Your task to perform on an android device: change the upload size in google photos Image 0: 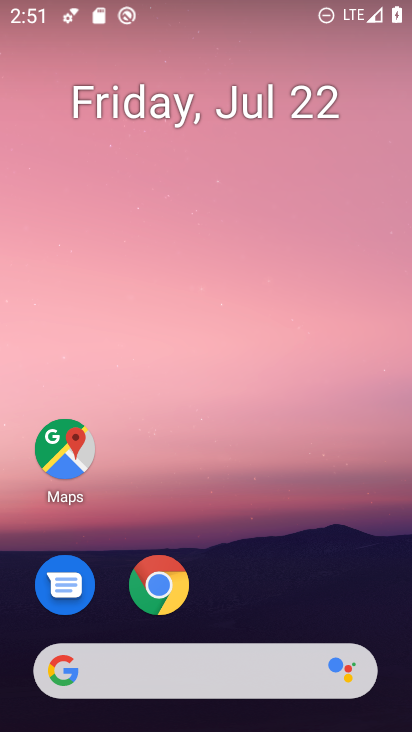
Step 0: drag from (298, 594) to (259, 47)
Your task to perform on an android device: change the upload size in google photos Image 1: 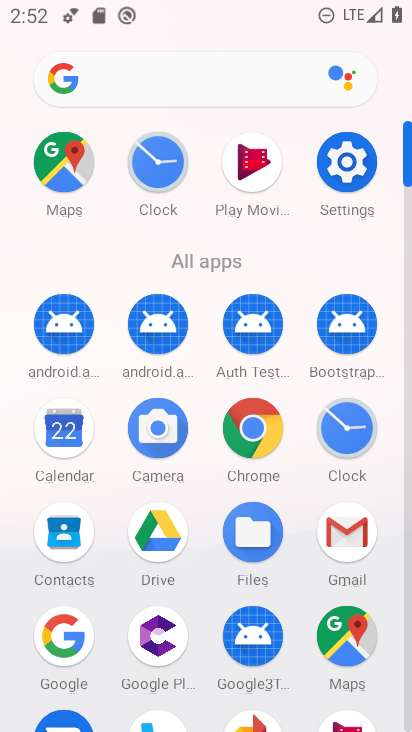
Step 1: drag from (285, 490) to (289, 62)
Your task to perform on an android device: change the upload size in google photos Image 2: 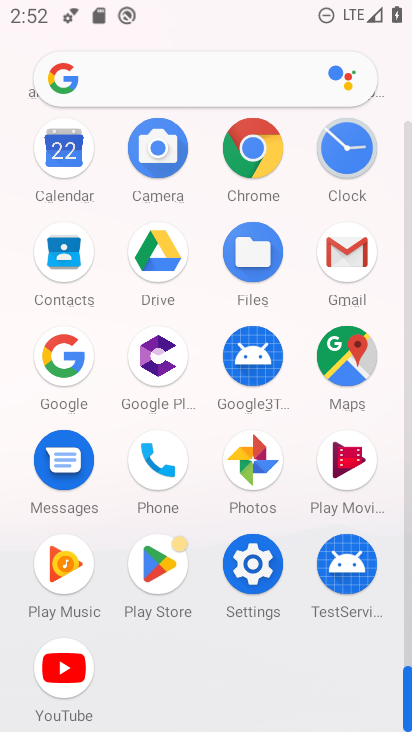
Step 2: click (261, 454)
Your task to perform on an android device: change the upload size in google photos Image 3: 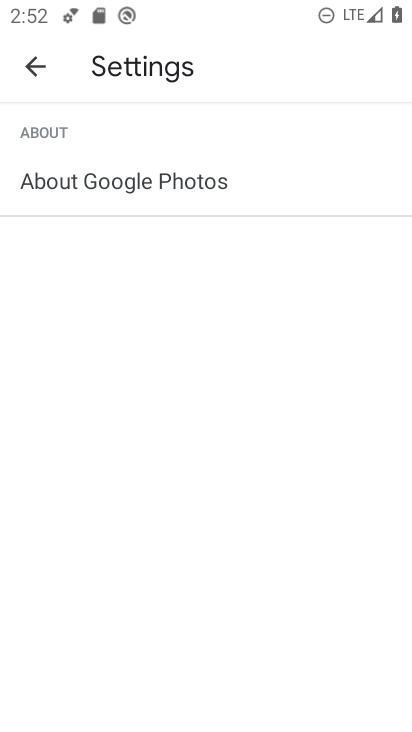
Step 3: click (35, 58)
Your task to perform on an android device: change the upload size in google photos Image 4: 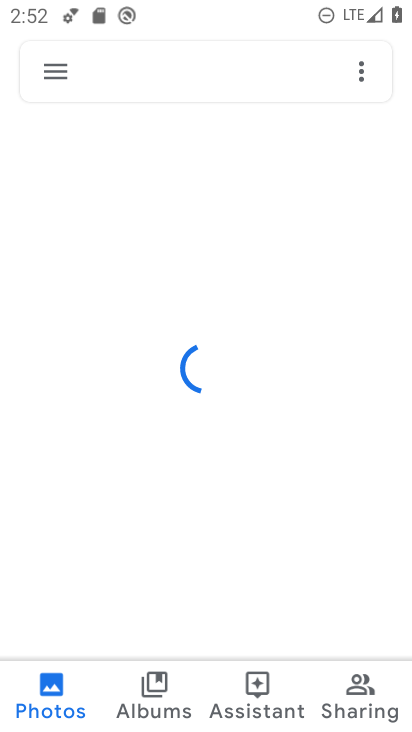
Step 4: click (58, 73)
Your task to perform on an android device: change the upload size in google photos Image 5: 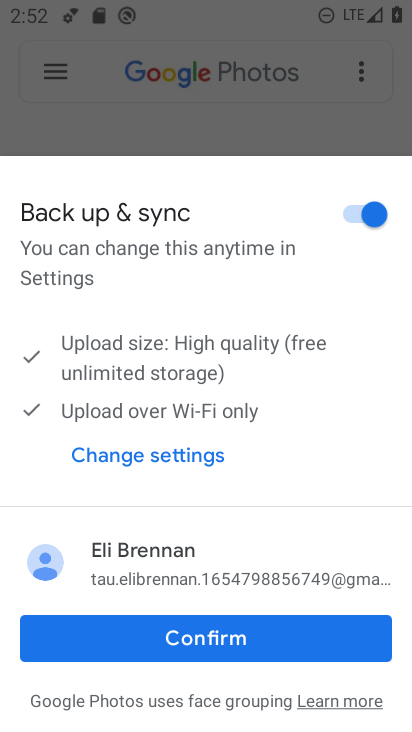
Step 5: click (277, 644)
Your task to perform on an android device: change the upload size in google photos Image 6: 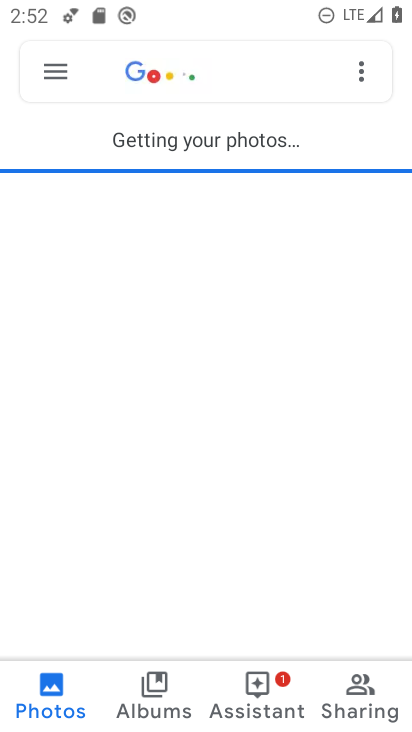
Step 6: click (46, 58)
Your task to perform on an android device: change the upload size in google photos Image 7: 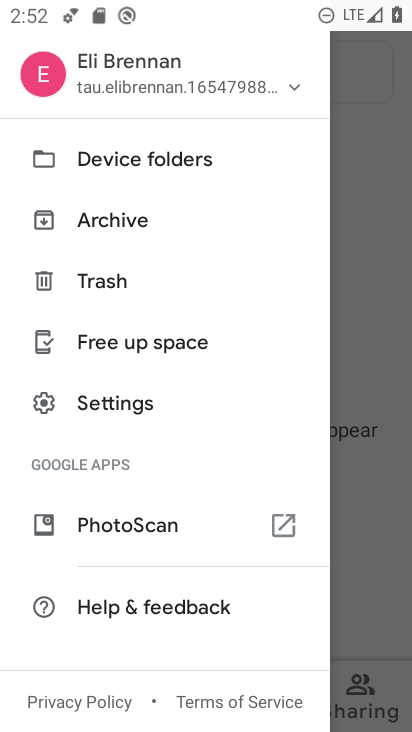
Step 7: click (124, 396)
Your task to perform on an android device: change the upload size in google photos Image 8: 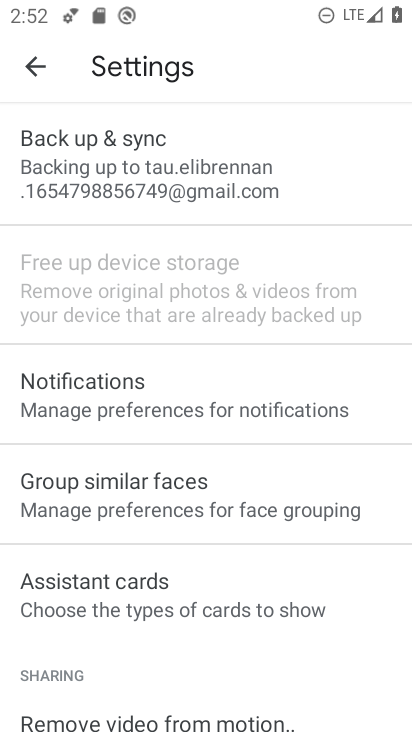
Step 8: click (202, 171)
Your task to perform on an android device: change the upload size in google photos Image 9: 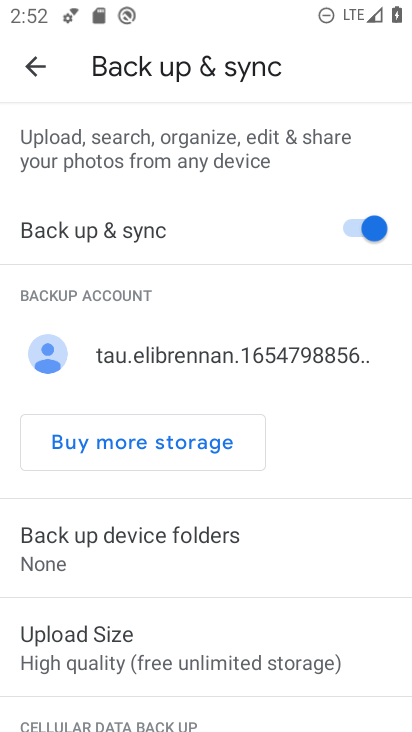
Step 9: click (258, 635)
Your task to perform on an android device: change the upload size in google photos Image 10: 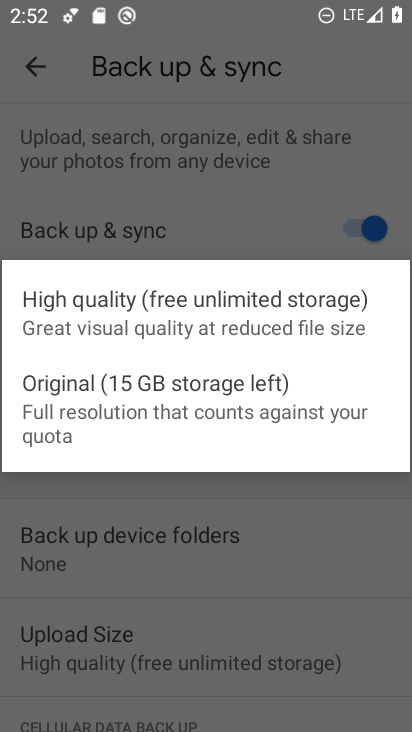
Step 10: click (290, 397)
Your task to perform on an android device: change the upload size in google photos Image 11: 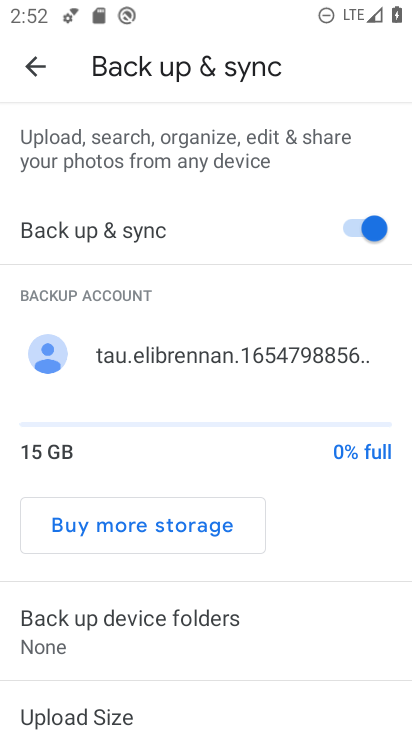
Step 11: task complete